Your task to perform on an android device: all mails in gmail Image 0: 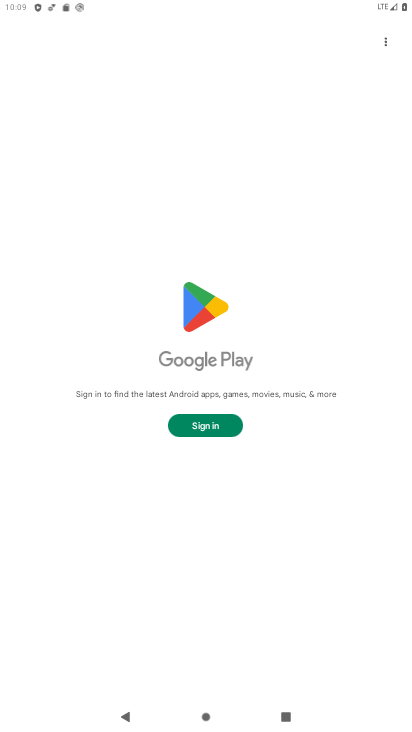
Step 0: press home button
Your task to perform on an android device: all mails in gmail Image 1: 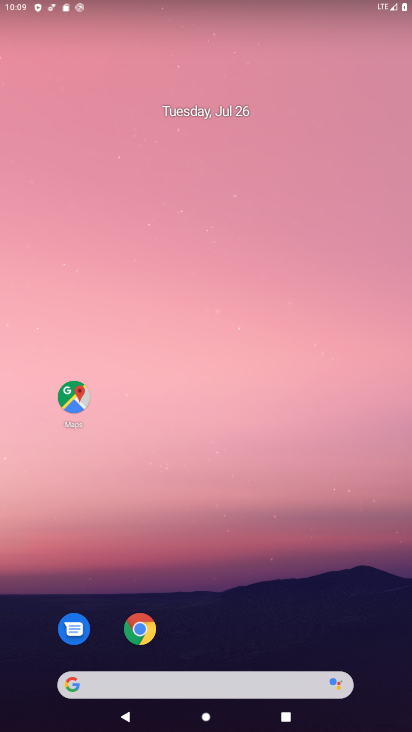
Step 1: drag from (198, 689) to (231, 69)
Your task to perform on an android device: all mails in gmail Image 2: 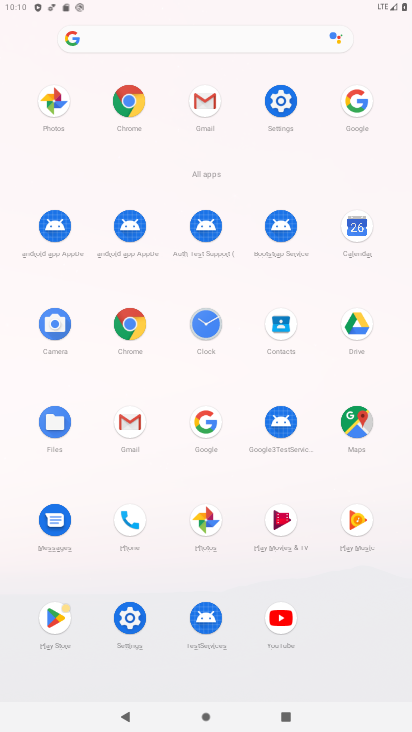
Step 2: click (201, 102)
Your task to perform on an android device: all mails in gmail Image 3: 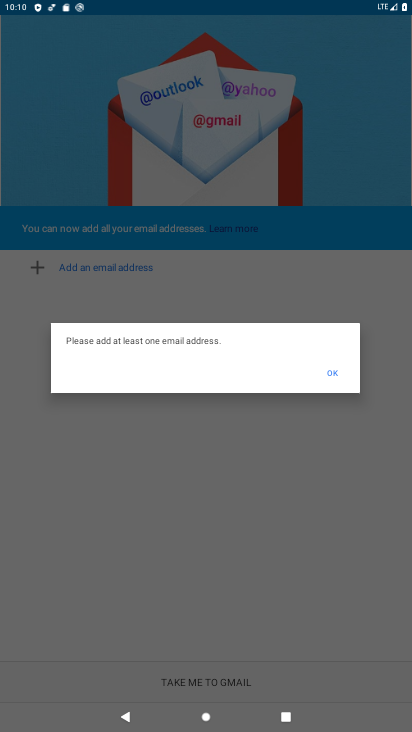
Step 3: click (336, 377)
Your task to perform on an android device: all mails in gmail Image 4: 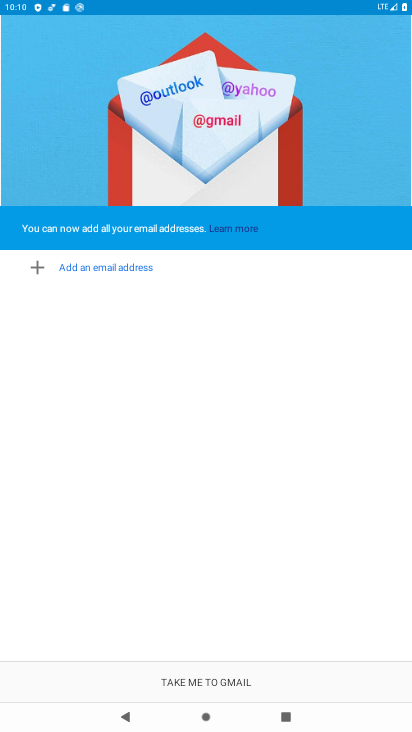
Step 4: click (175, 679)
Your task to perform on an android device: all mails in gmail Image 5: 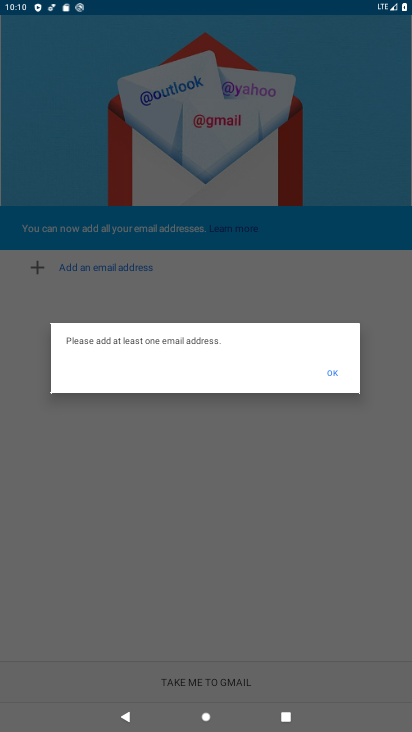
Step 5: click (331, 372)
Your task to perform on an android device: all mails in gmail Image 6: 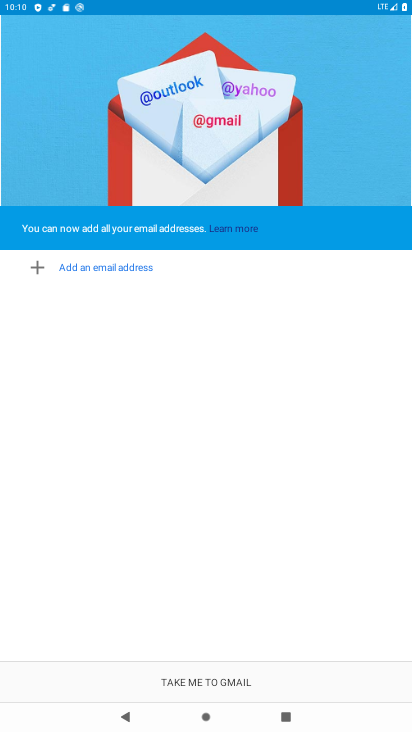
Step 6: task complete